Your task to perform on an android device: Go to network settings Image 0: 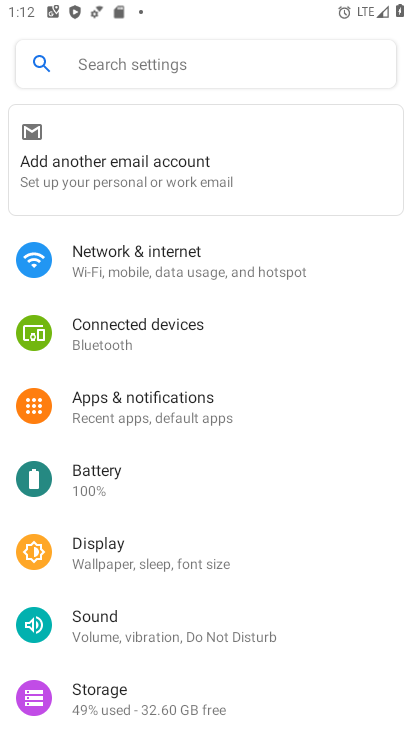
Step 0: click (177, 255)
Your task to perform on an android device: Go to network settings Image 1: 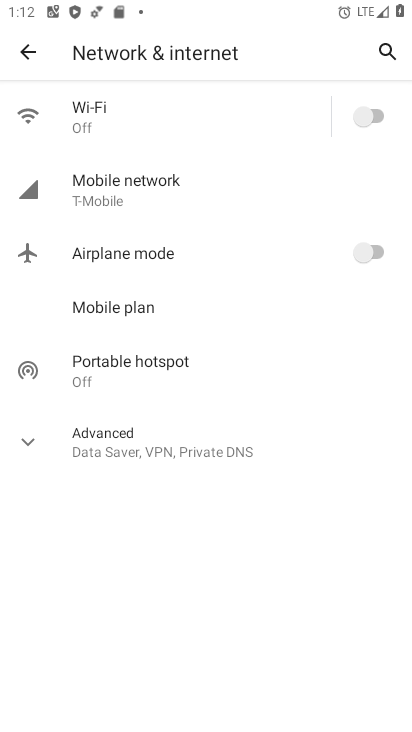
Step 1: click (33, 452)
Your task to perform on an android device: Go to network settings Image 2: 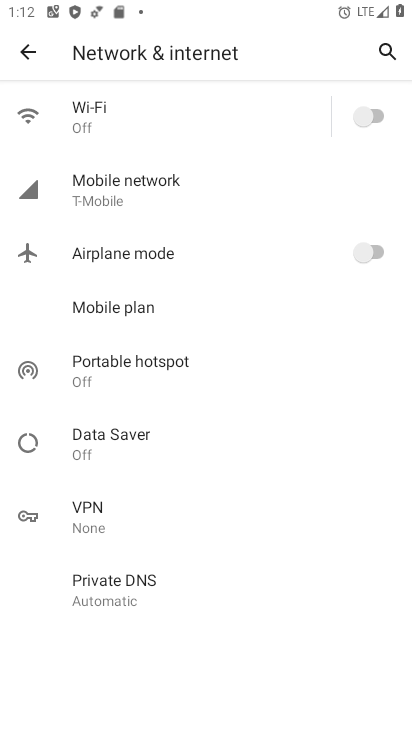
Step 2: task complete